Your task to perform on an android device: Show me productivity apps on the Play Store Image 0: 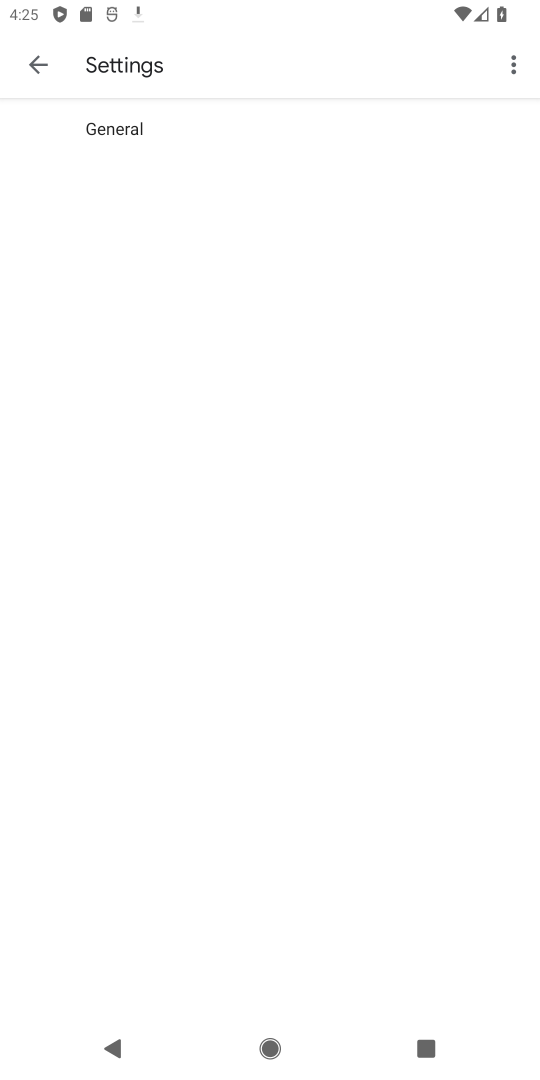
Step 0: press home button
Your task to perform on an android device: Show me productivity apps on the Play Store Image 1: 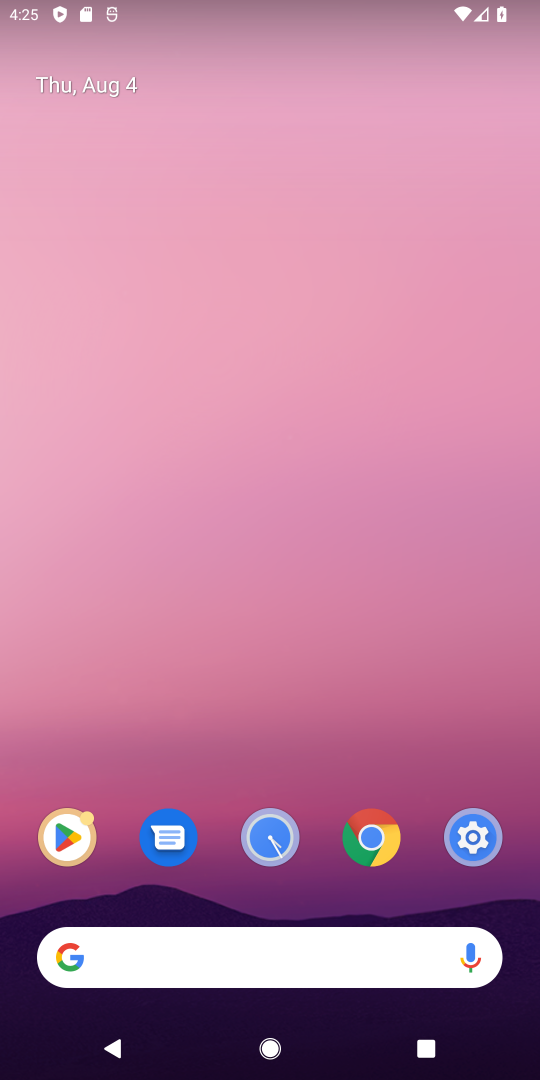
Step 1: click (73, 839)
Your task to perform on an android device: Show me productivity apps on the Play Store Image 2: 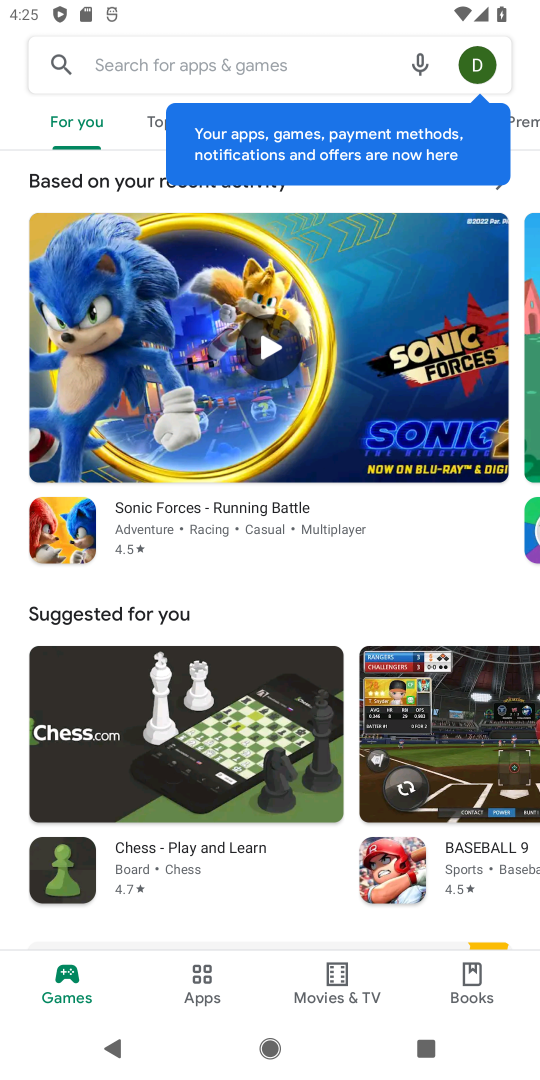
Step 2: click (211, 978)
Your task to perform on an android device: Show me productivity apps on the Play Store Image 3: 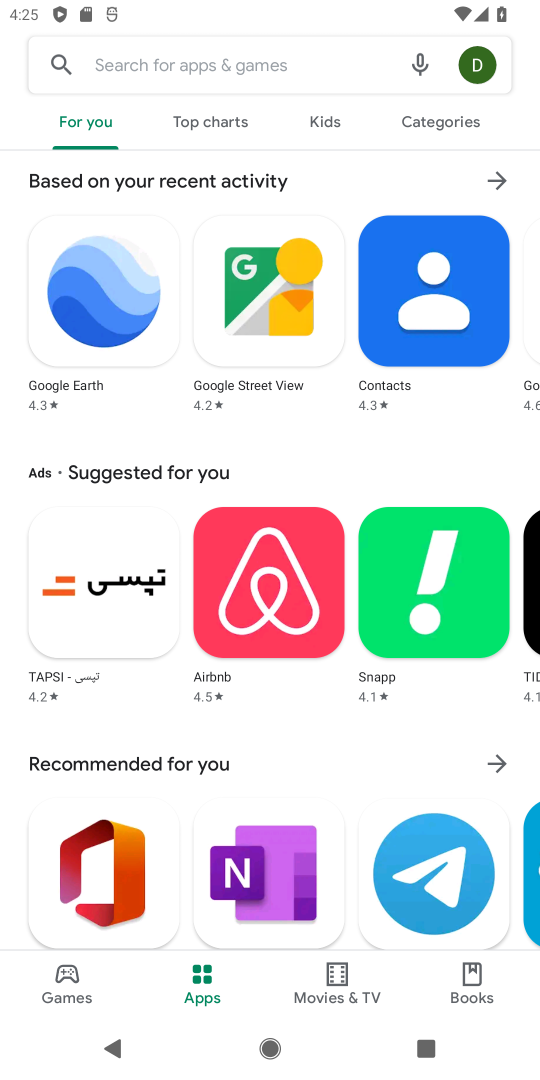
Step 3: click (437, 128)
Your task to perform on an android device: Show me productivity apps on the Play Store Image 4: 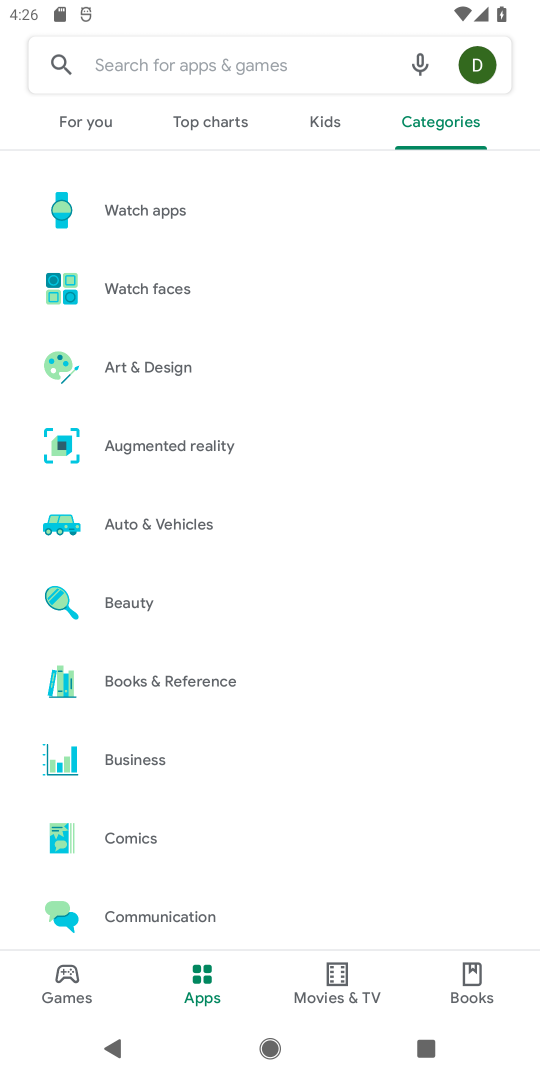
Step 4: drag from (191, 799) to (269, 18)
Your task to perform on an android device: Show me productivity apps on the Play Store Image 5: 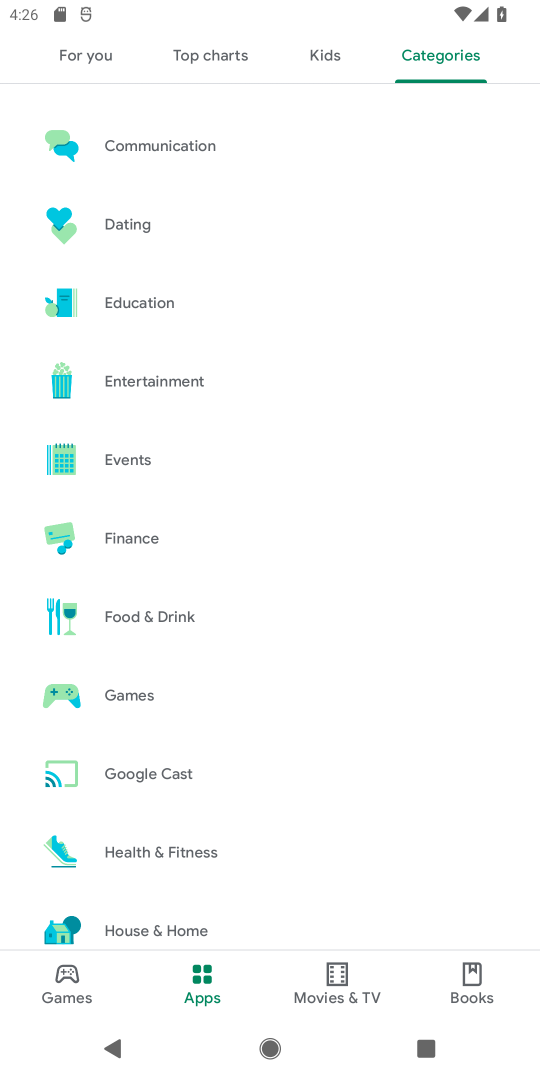
Step 5: drag from (180, 830) to (158, 222)
Your task to perform on an android device: Show me productivity apps on the Play Store Image 6: 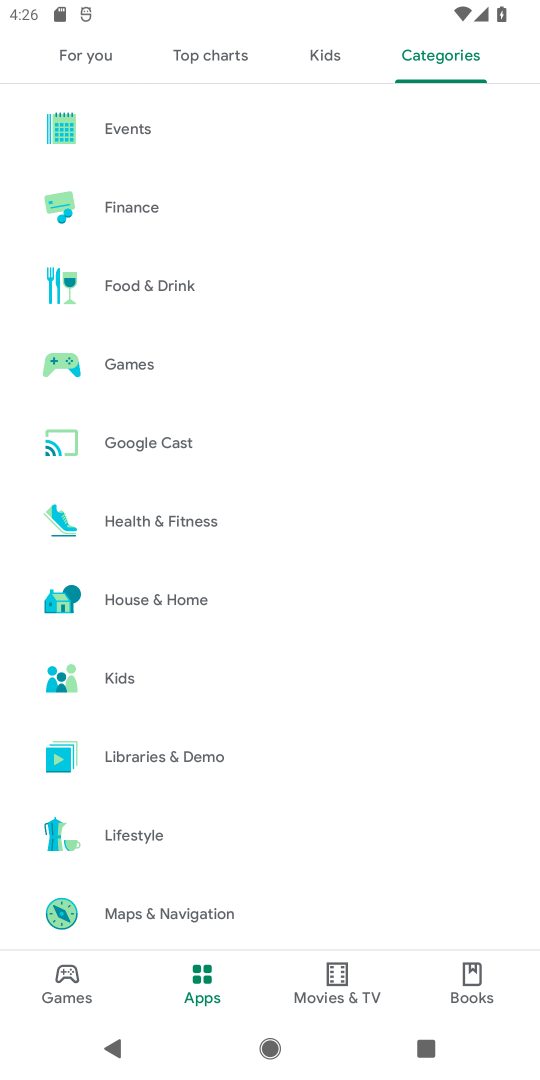
Step 6: drag from (144, 750) to (7, 333)
Your task to perform on an android device: Show me productivity apps on the Play Store Image 7: 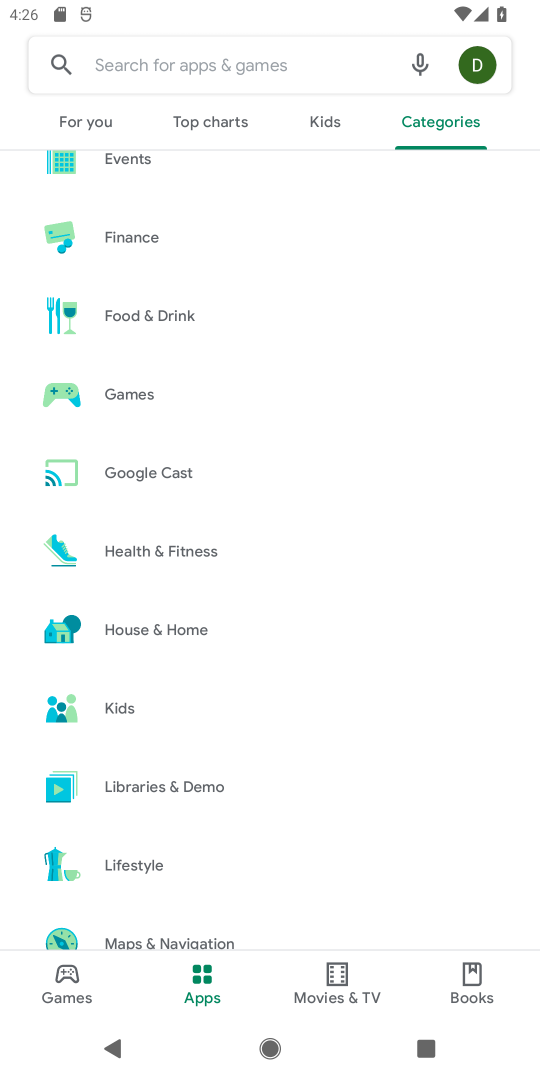
Step 7: drag from (180, 888) to (180, 449)
Your task to perform on an android device: Show me productivity apps on the Play Store Image 8: 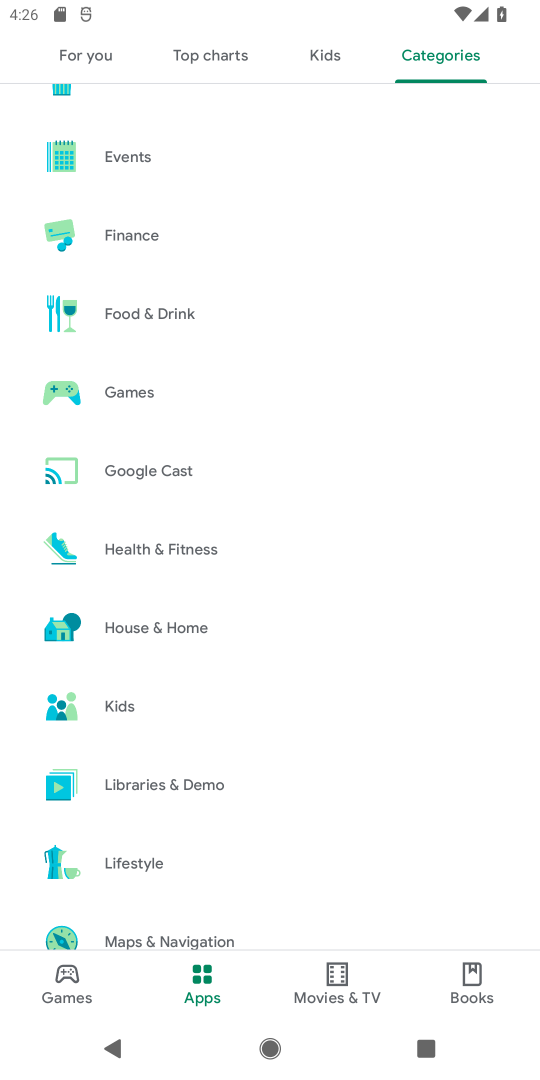
Step 8: drag from (228, 827) to (228, 65)
Your task to perform on an android device: Show me productivity apps on the Play Store Image 9: 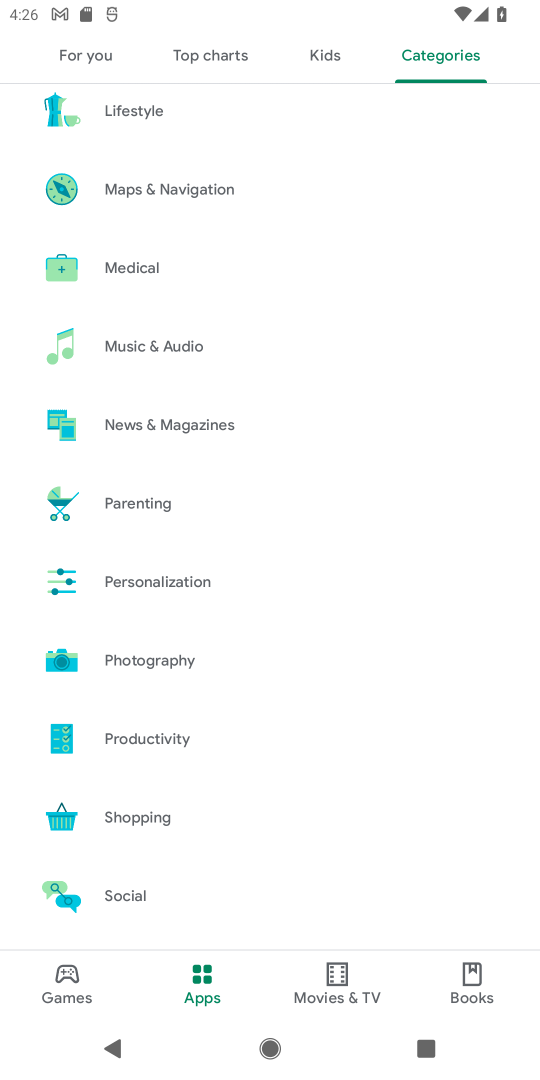
Step 9: click (202, 734)
Your task to perform on an android device: Show me productivity apps on the Play Store Image 10: 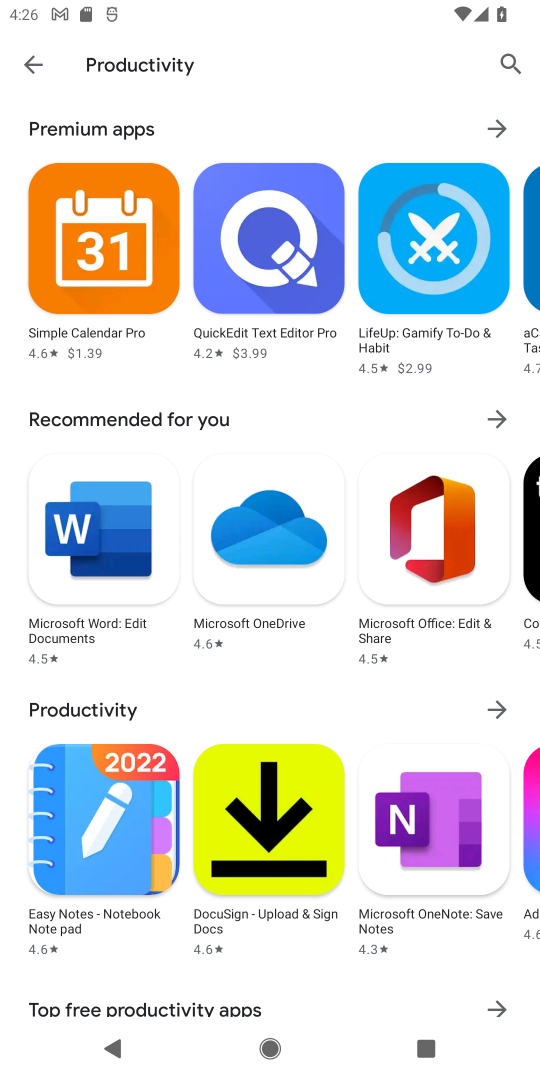
Step 10: task complete